Your task to perform on an android device: create a new album in the google photos Image 0: 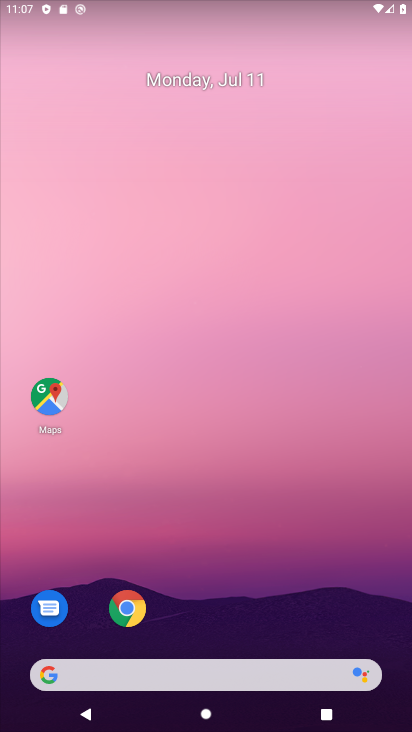
Step 0: drag from (206, 613) to (236, 71)
Your task to perform on an android device: create a new album in the google photos Image 1: 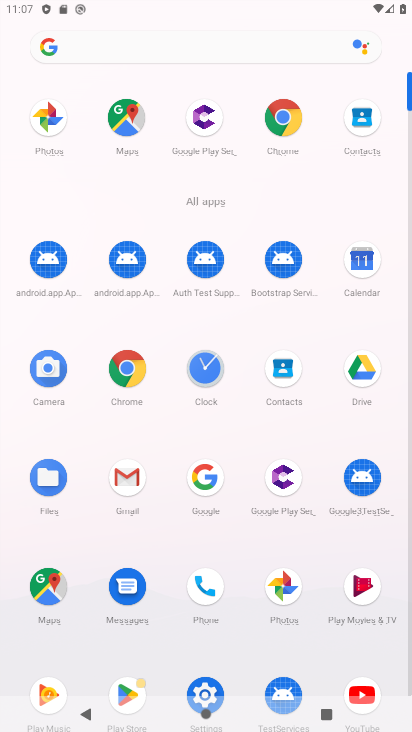
Step 1: click (290, 582)
Your task to perform on an android device: create a new album in the google photos Image 2: 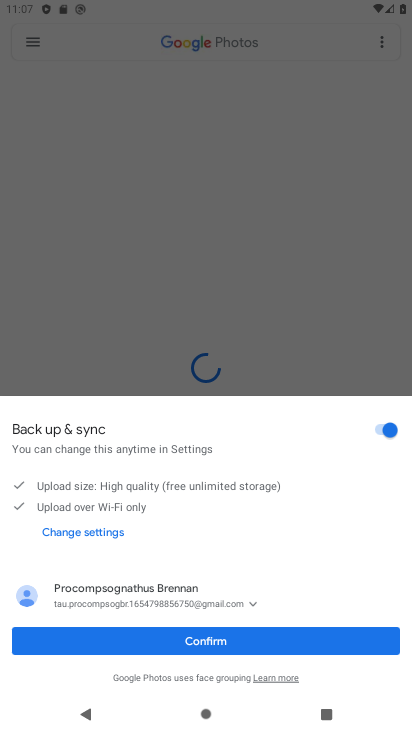
Step 2: click (221, 640)
Your task to perform on an android device: create a new album in the google photos Image 3: 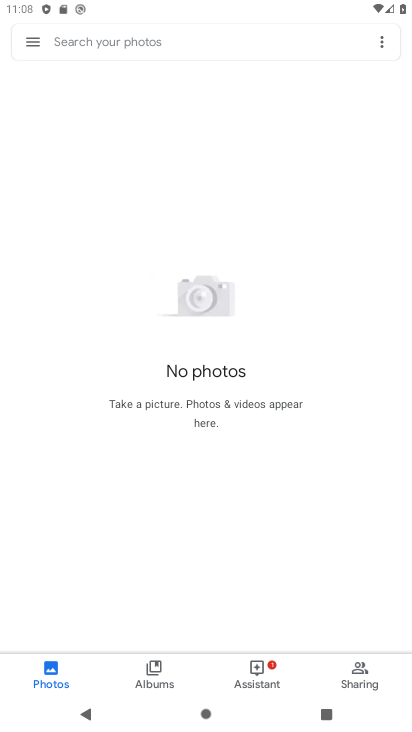
Step 3: task complete